Your task to perform on an android device: Open Maps and search for coffee Image 0: 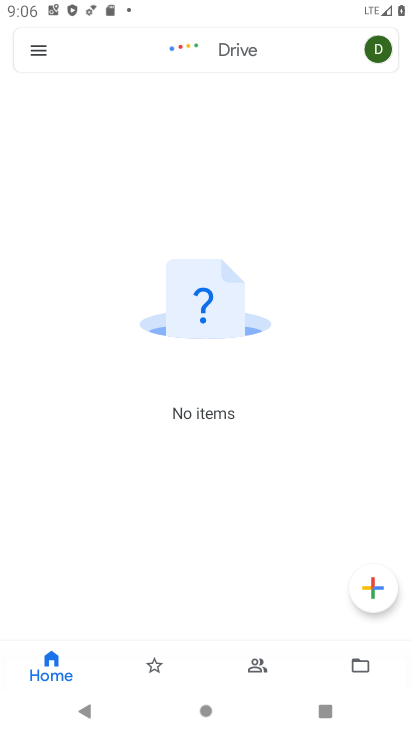
Step 0: press home button
Your task to perform on an android device: Open Maps and search for coffee Image 1: 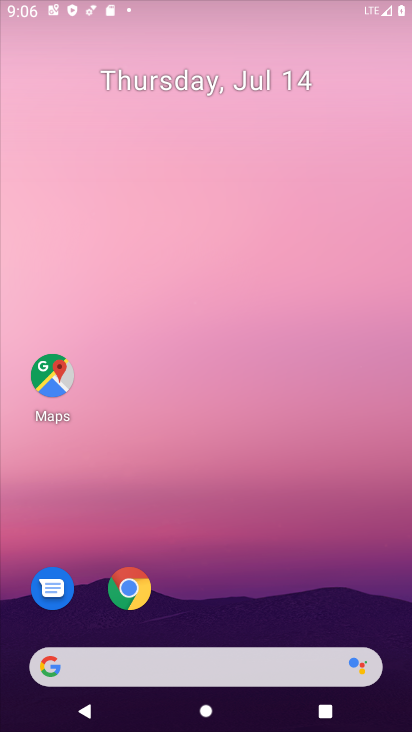
Step 1: drag from (377, 623) to (165, 29)
Your task to perform on an android device: Open Maps and search for coffee Image 2: 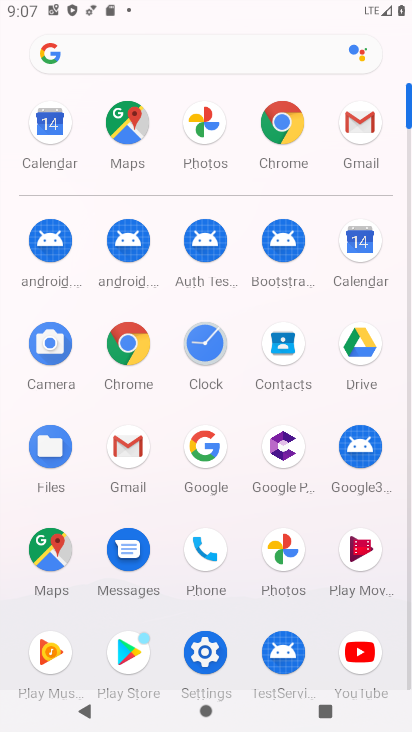
Step 2: click (54, 555)
Your task to perform on an android device: Open Maps and search for coffee Image 3: 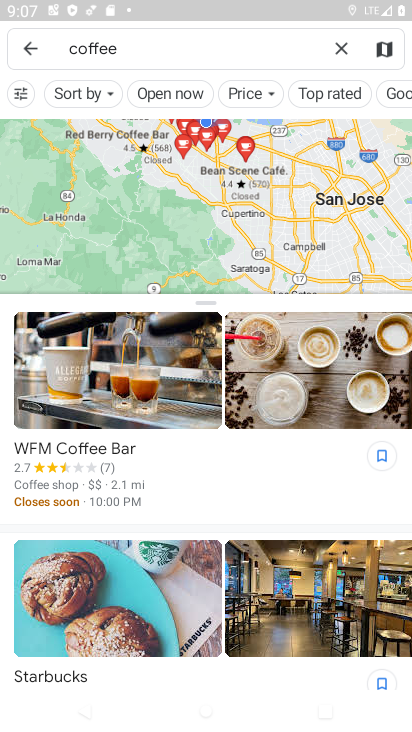
Step 3: task complete